Your task to perform on an android device: open a new tab in the chrome app Image 0: 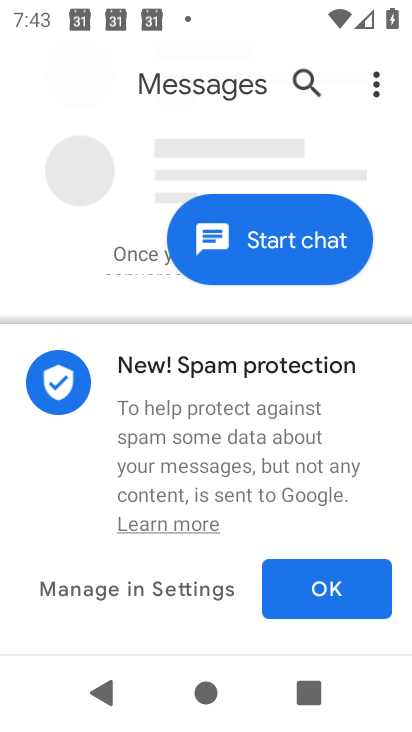
Step 0: press home button
Your task to perform on an android device: open a new tab in the chrome app Image 1: 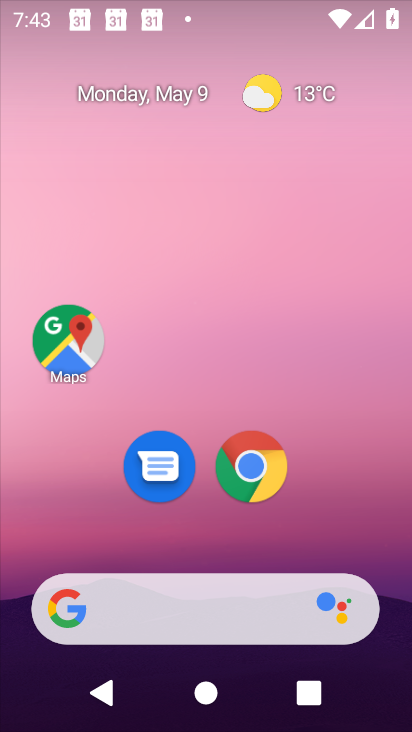
Step 1: drag from (331, 529) to (363, 192)
Your task to perform on an android device: open a new tab in the chrome app Image 2: 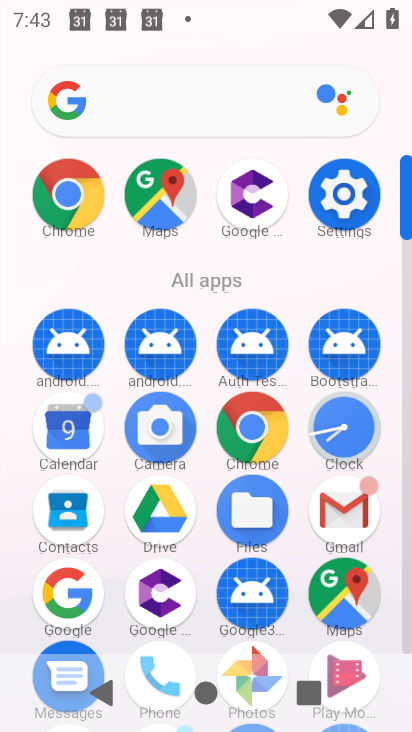
Step 2: click (258, 440)
Your task to perform on an android device: open a new tab in the chrome app Image 3: 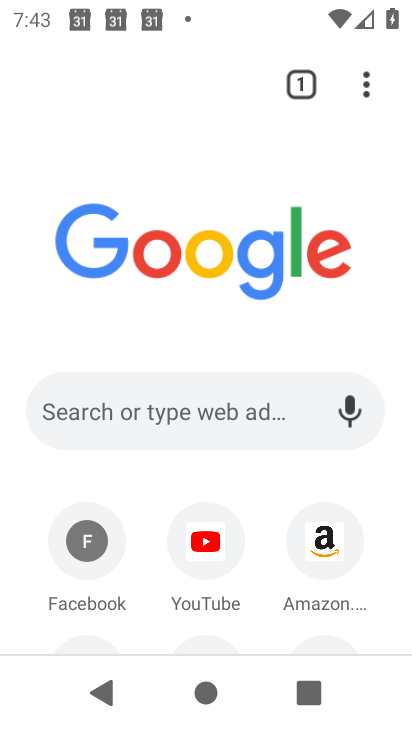
Step 3: click (351, 71)
Your task to perform on an android device: open a new tab in the chrome app Image 4: 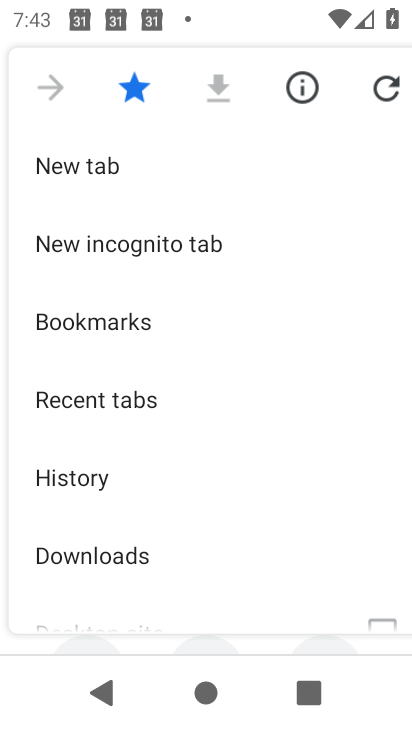
Step 4: click (144, 172)
Your task to perform on an android device: open a new tab in the chrome app Image 5: 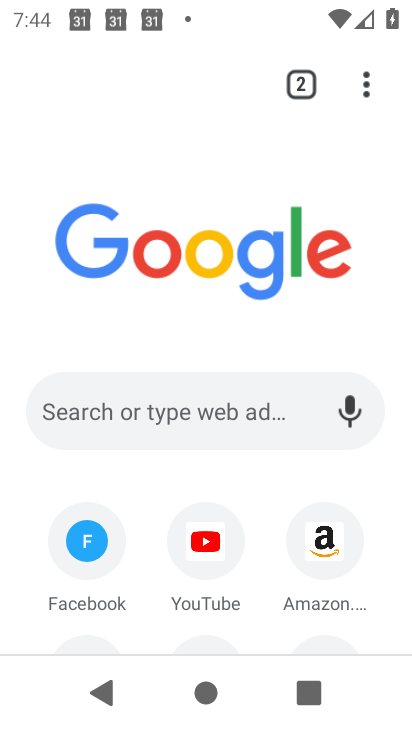
Step 5: task complete